Your task to perform on an android device: turn on the 24-hour format for clock Image 0: 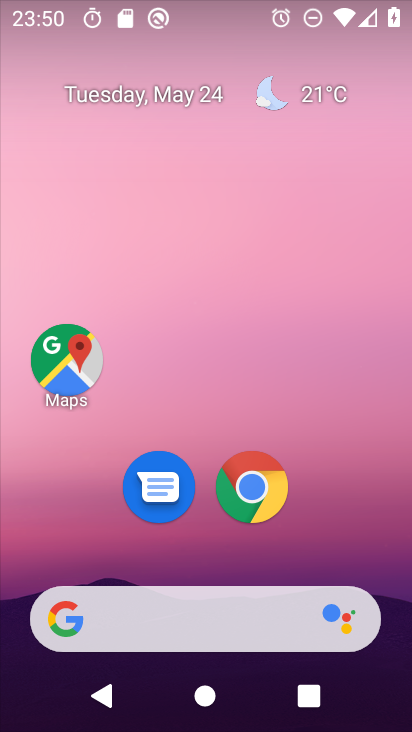
Step 0: drag from (380, 568) to (363, 5)
Your task to perform on an android device: turn on the 24-hour format for clock Image 1: 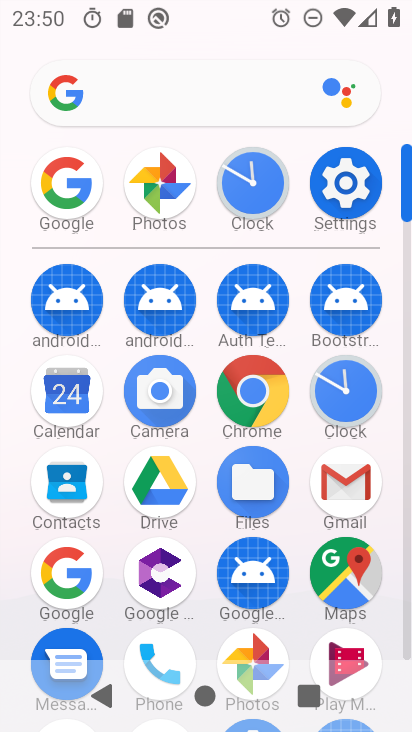
Step 1: click (343, 387)
Your task to perform on an android device: turn on the 24-hour format for clock Image 2: 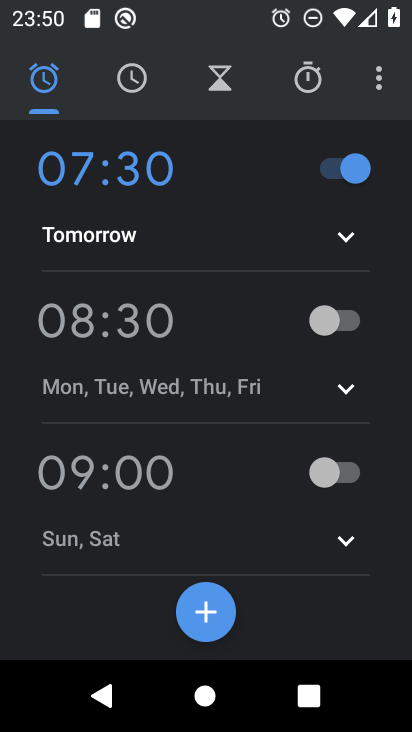
Step 2: click (382, 83)
Your task to perform on an android device: turn on the 24-hour format for clock Image 3: 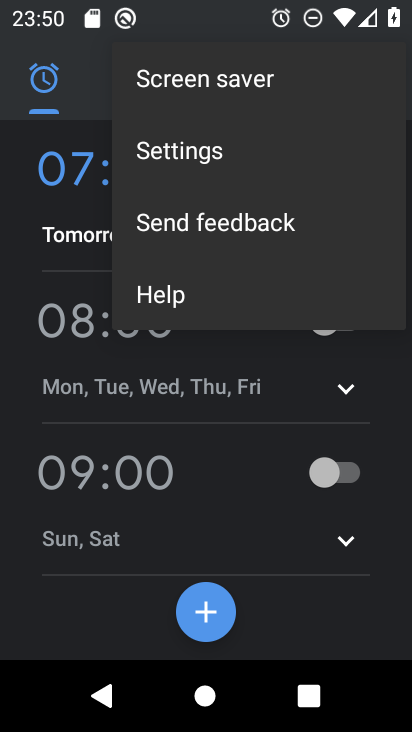
Step 3: click (176, 160)
Your task to perform on an android device: turn on the 24-hour format for clock Image 4: 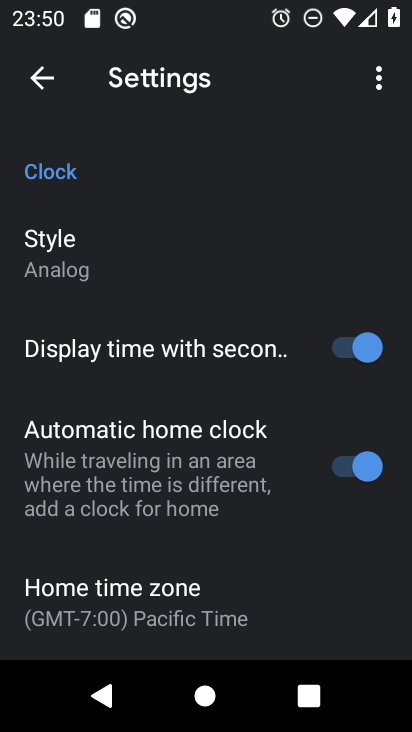
Step 4: drag from (130, 528) to (130, 171)
Your task to perform on an android device: turn on the 24-hour format for clock Image 5: 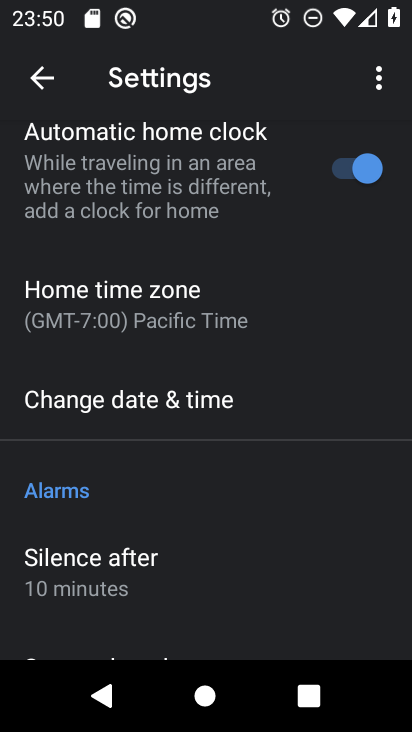
Step 5: click (116, 405)
Your task to perform on an android device: turn on the 24-hour format for clock Image 6: 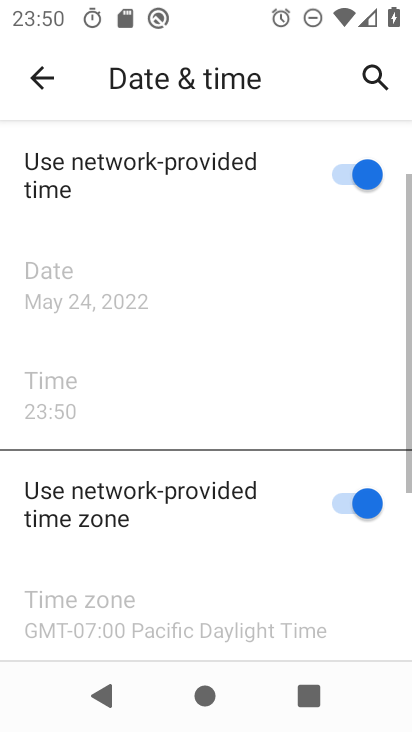
Step 6: task complete